Your task to perform on an android device: Clear the shopping cart on target. Search for logitech g pro on target, select the first entry, and add it to the cart. Image 0: 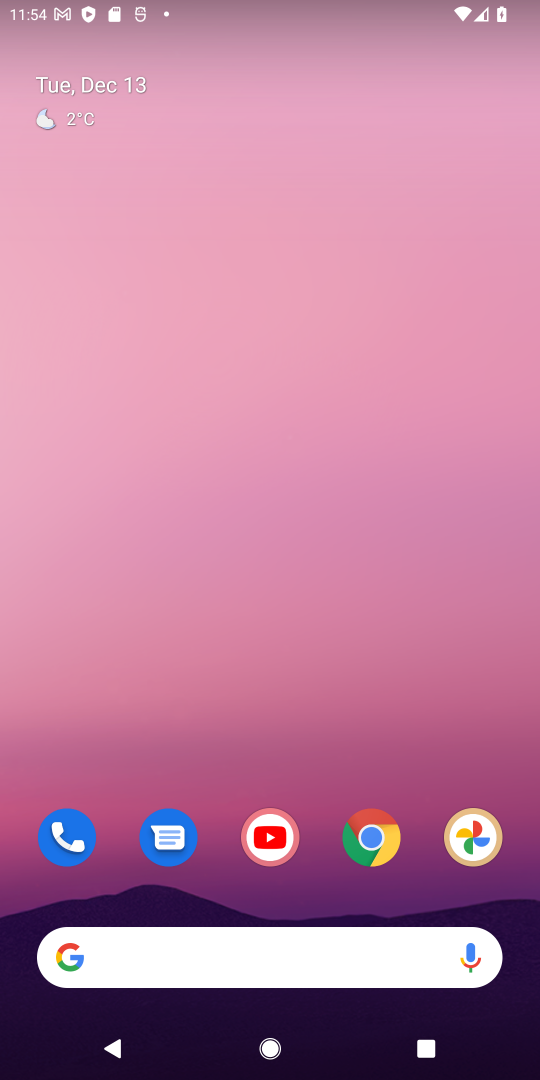
Step 0: click (363, 829)
Your task to perform on an android device: Clear the shopping cart on target. Search for logitech g pro on target, select the first entry, and add it to the cart. Image 1: 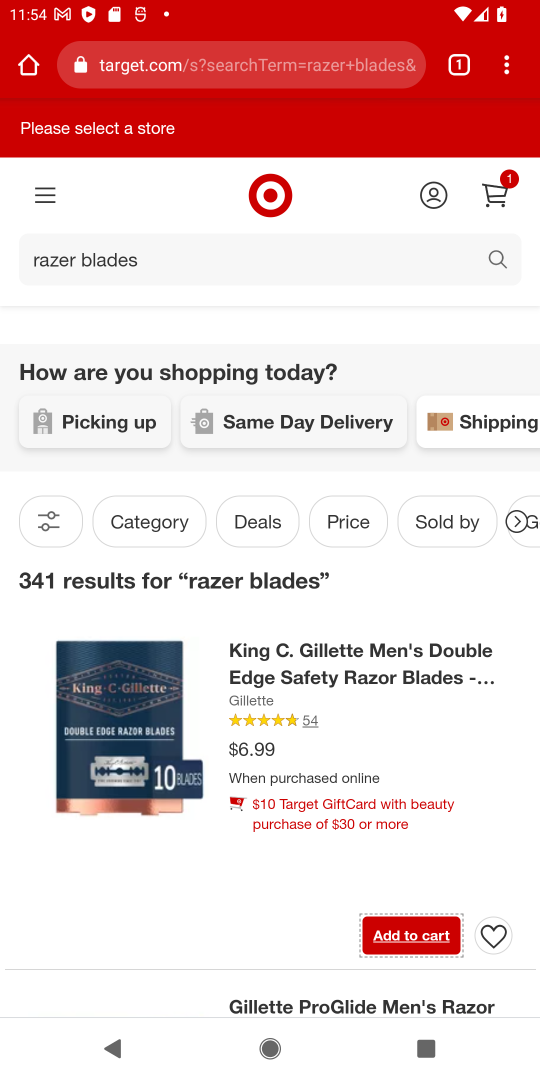
Step 1: click (253, 65)
Your task to perform on an android device: Clear the shopping cart on target. Search for logitech g pro on target, select the first entry, and add it to the cart. Image 2: 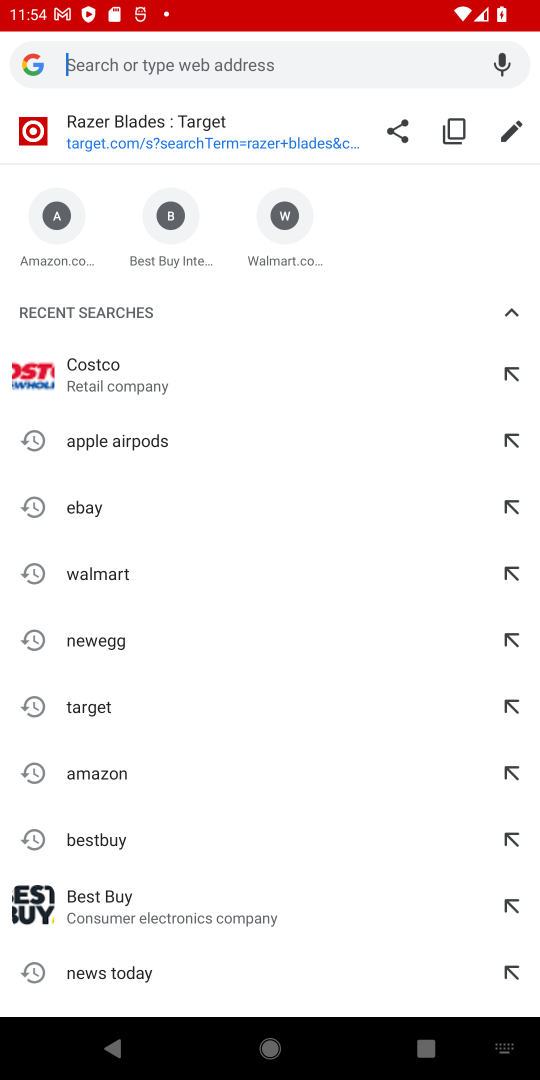
Step 2: click (190, 127)
Your task to perform on an android device: Clear the shopping cart on target. Search for logitech g pro on target, select the first entry, and add it to the cart. Image 3: 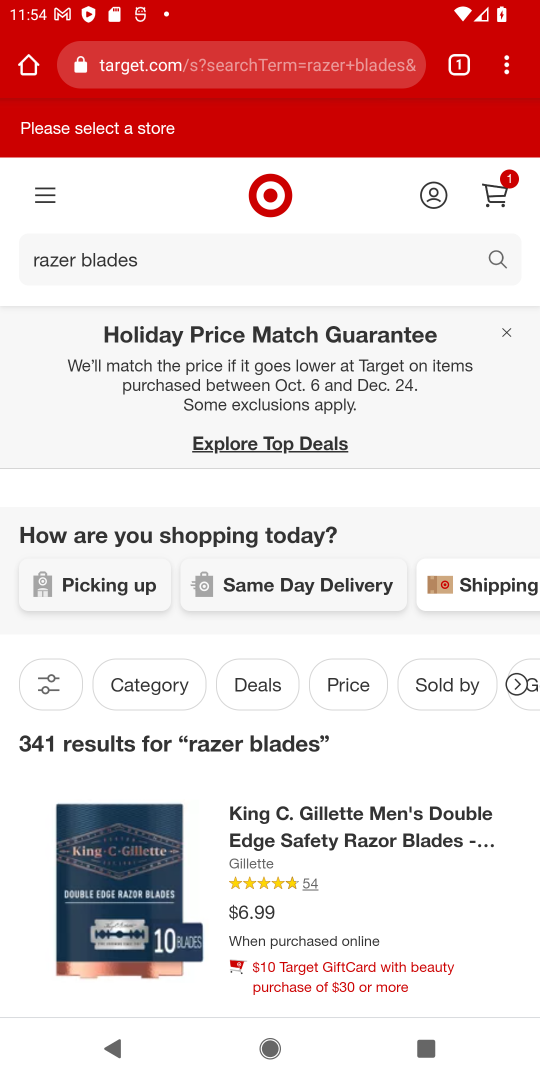
Step 3: task complete